Your task to perform on an android device: refresh tabs in the chrome app Image 0: 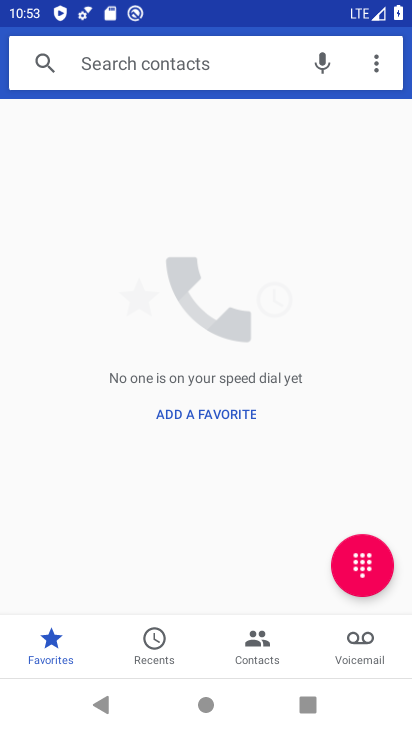
Step 0: press home button
Your task to perform on an android device: refresh tabs in the chrome app Image 1: 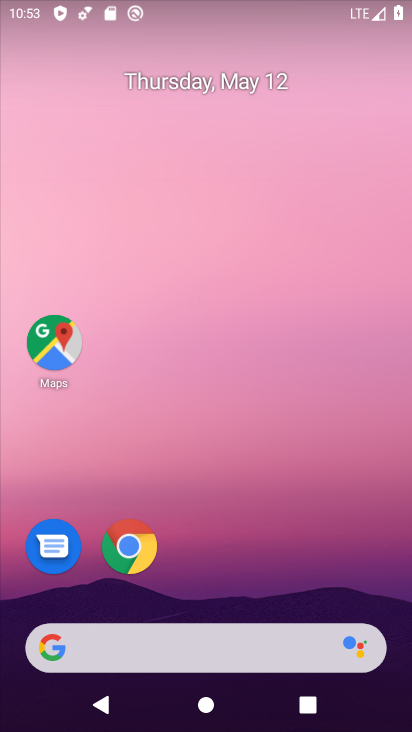
Step 1: click (131, 554)
Your task to perform on an android device: refresh tabs in the chrome app Image 2: 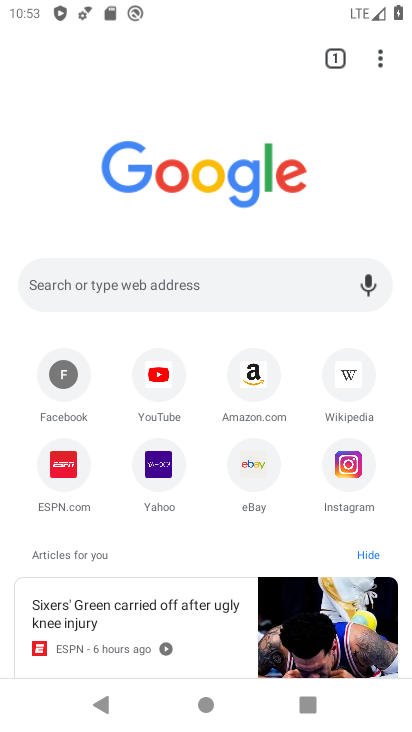
Step 2: click (381, 63)
Your task to perform on an android device: refresh tabs in the chrome app Image 3: 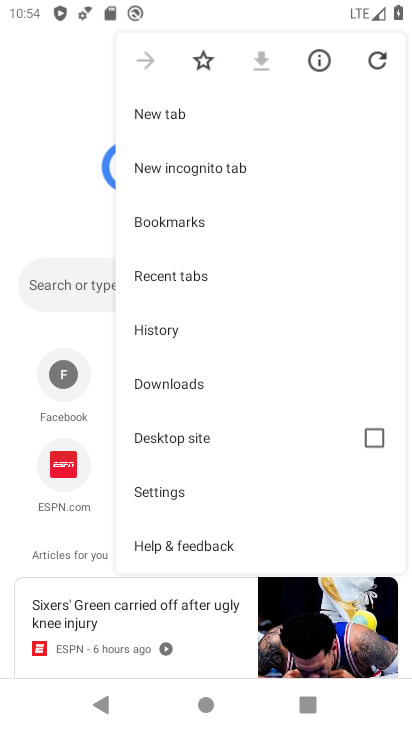
Step 3: click (379, 57)
Your task to perform on an android device: refresh tabs in the chrome app Image 4: 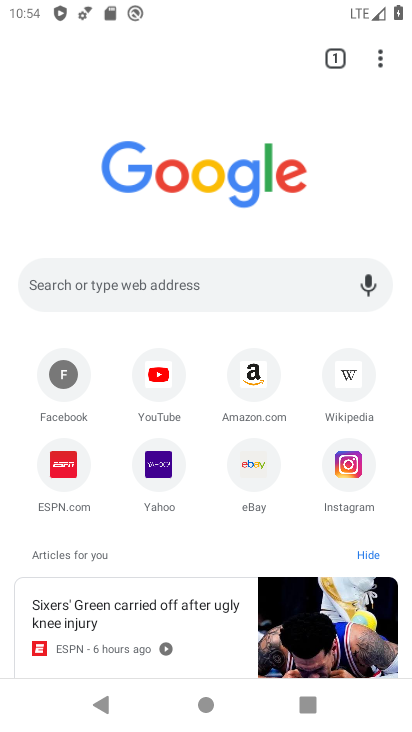
Step 4: task complete